Your task to perform on an android device: see tabs open on other devices in the chrome app Image 0: 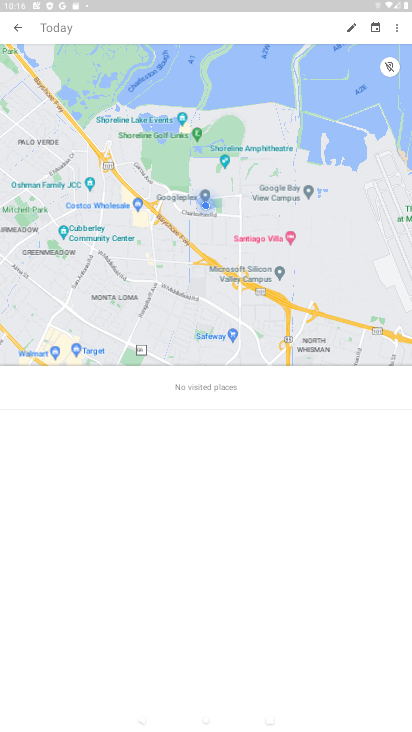
Step 0: press home button
Your task to perform on an android device: see tabs open on other devices in the chrome app Image 1: 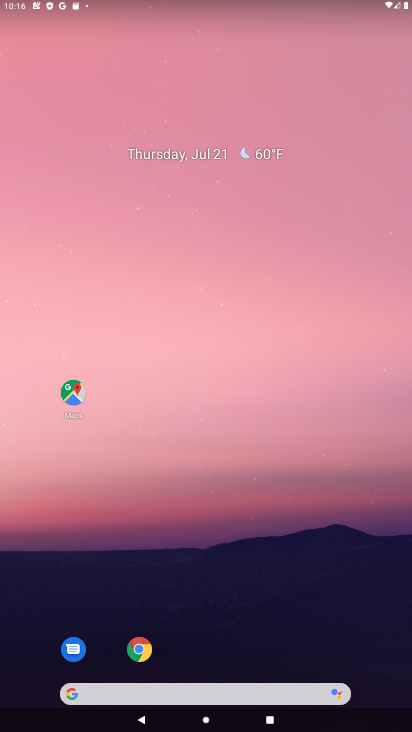
Step 1: click (139, 651)
Your task to perform on an android device: see tabs open on other devices in the chrome app Image 2: 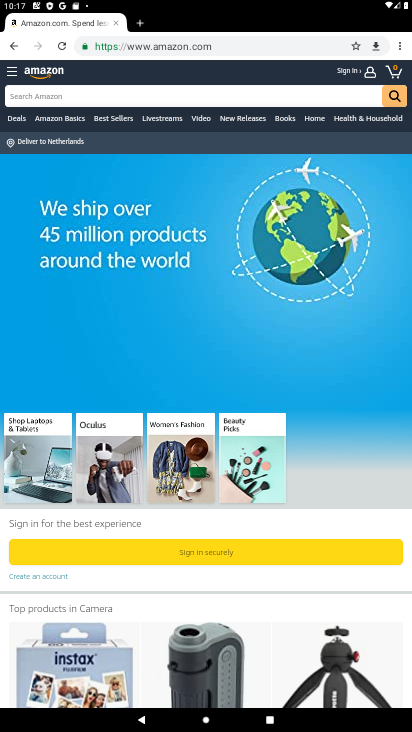
Step 2: click (400, 47)
Your task to perform on an android device: see tabs open on other devices in the chrome app Image 3: 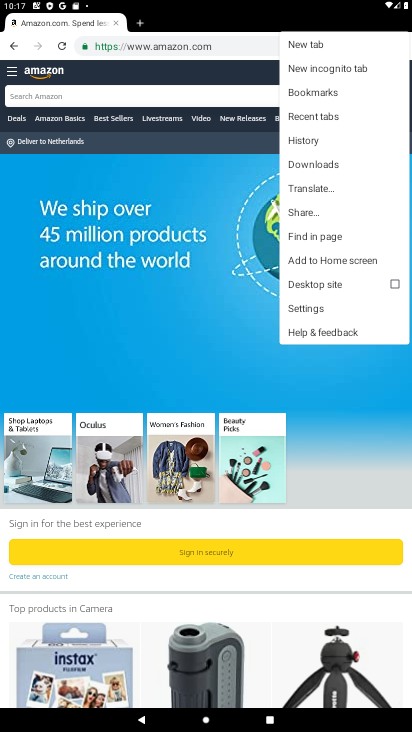
Step 3: click (336, 118)
Your task to perform on an android device: see tabs open on other devices in the chrome app Image 4: 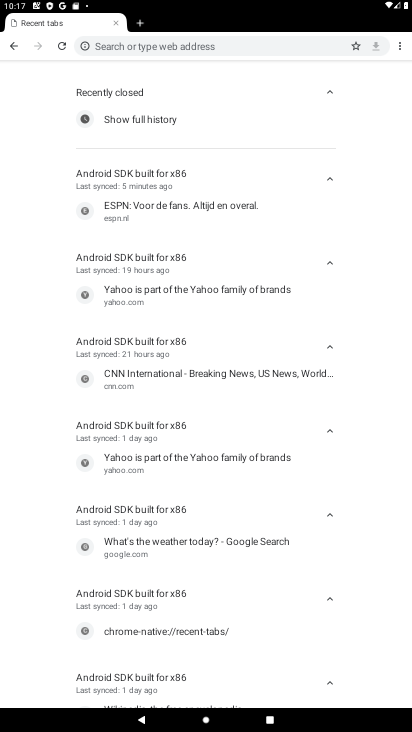
Step 4: task complete